Your task to perform on an android device: Go to Amazon Image 0: 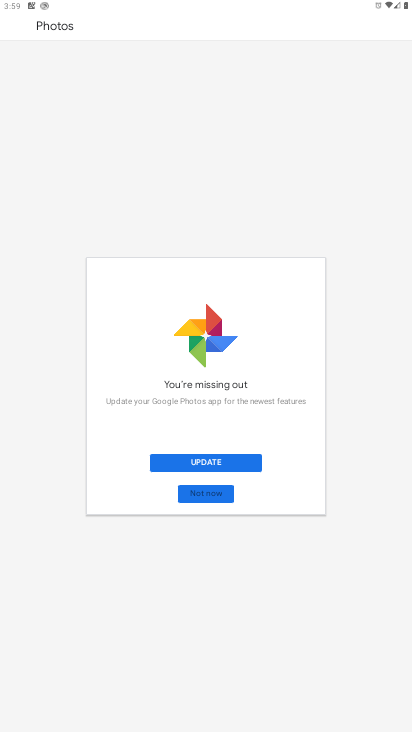
Step 0: press home button
Your task to perform on an android device: Go to Amazon Image 1: 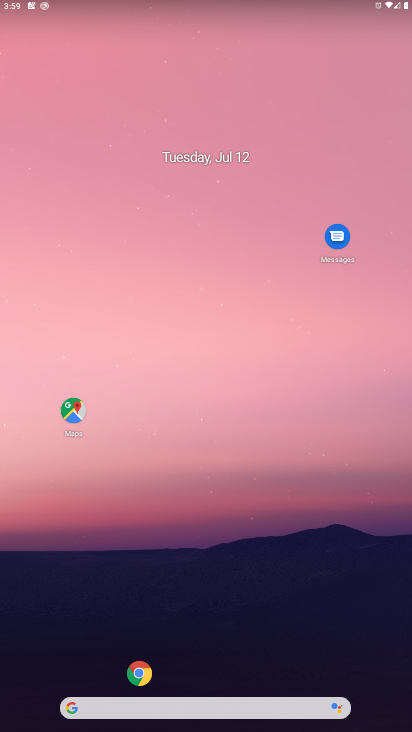
Step 1: click (105, 712)
Your task to perform on an android device: Go to Amazon Image 2: 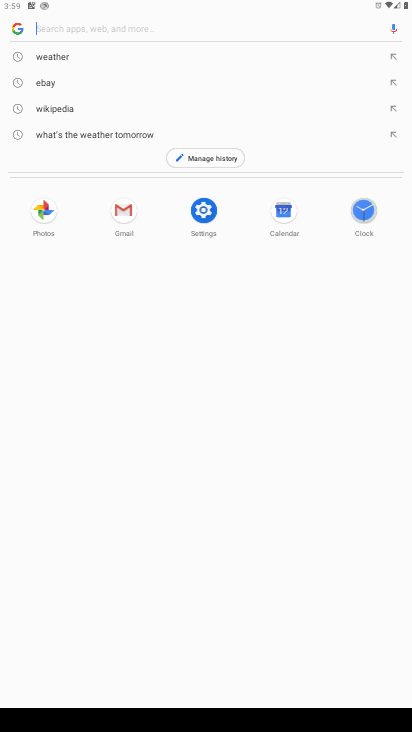
Step 2: type "Amazon"
Your task to perform on an android device: Go to Amazon Image 3: 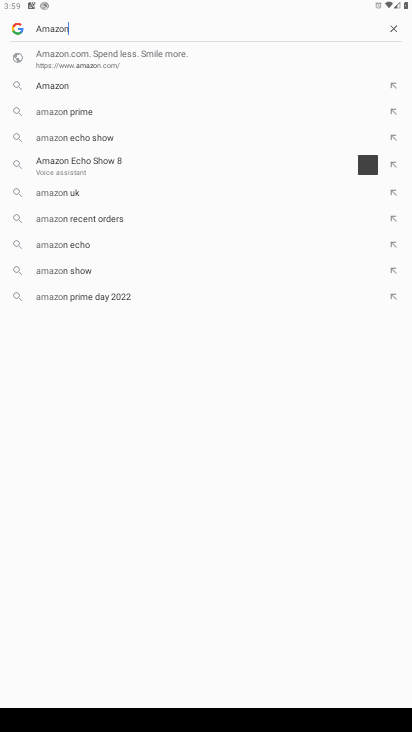
Step 3: type ""
Your task to perform on an android device: Go to Amazon Image 4: 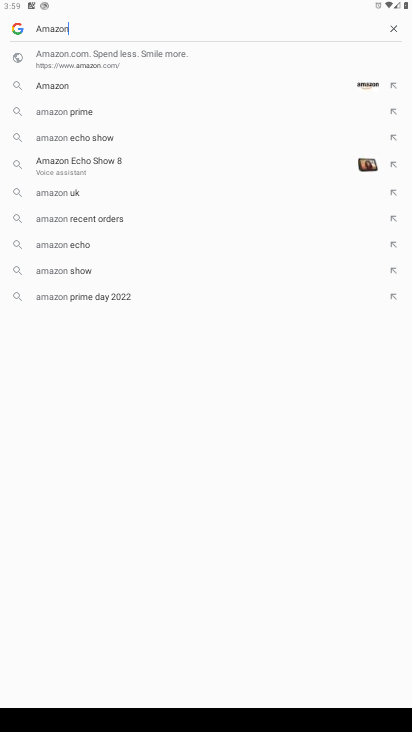
Step 4: click (87, 90)
Your task to perform on an android device: Go to Amazon Image 5: 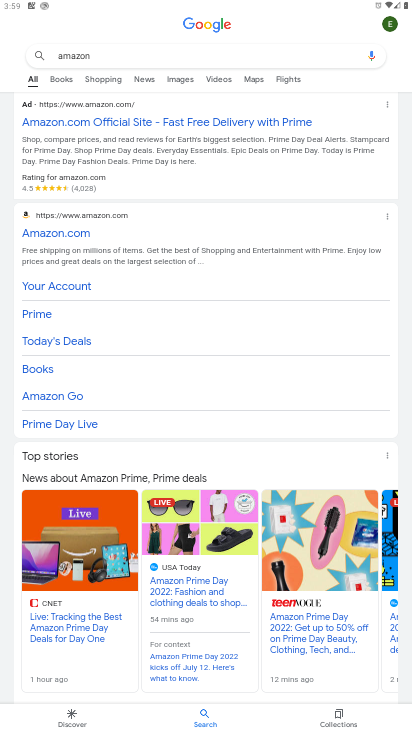
Step 5: task complete